Your task to perform on an android device: delete browsing data in the chrome app Image 0: 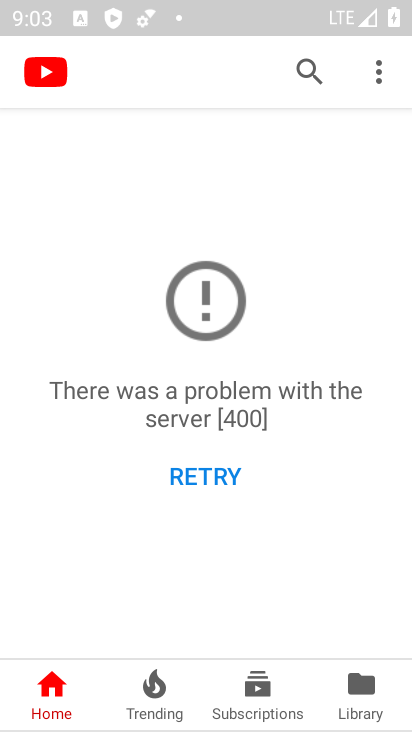
Step 0: press home button
Your task to perform on an android device: delete browsing data in the chrome app Image 1: 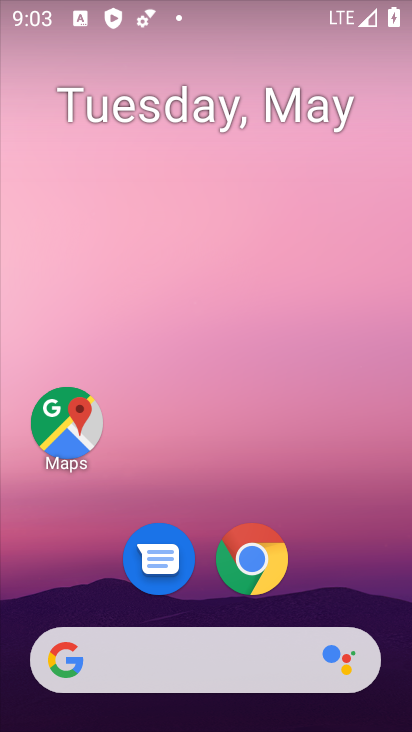
Step 1: click (257, 566)
Your task to perform on an android device: delete browsing data in the chrome app Image 2: 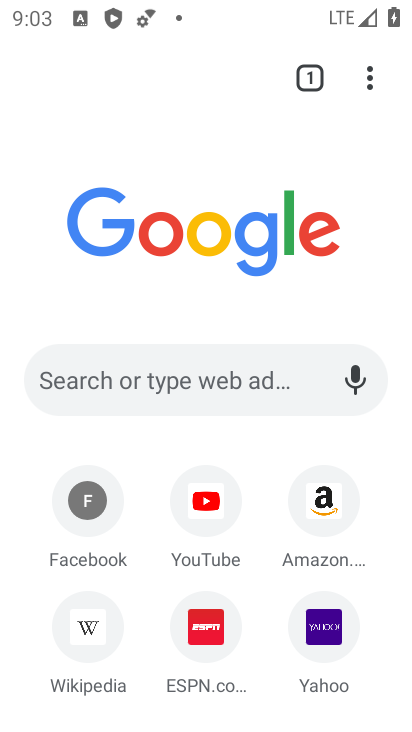
Step 2: drag from (365, 85) to (108, 423)
Your task to perform on an android device: delete browsing data in the chrome app Image 3: 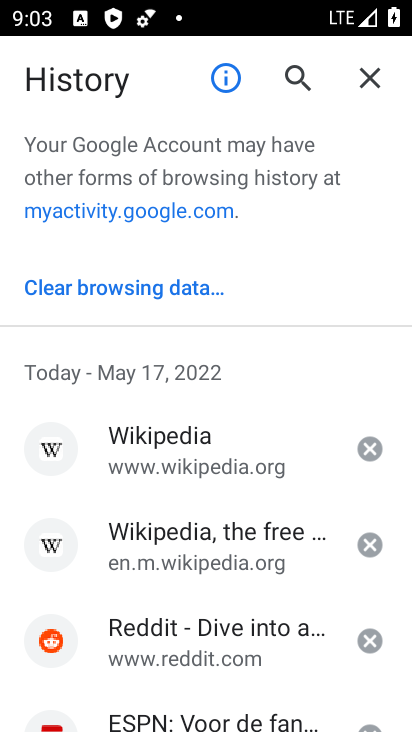
Step 3: click (141, 284)
Your task to perform on an android device: delete browsing data in the chrome app Image 4: 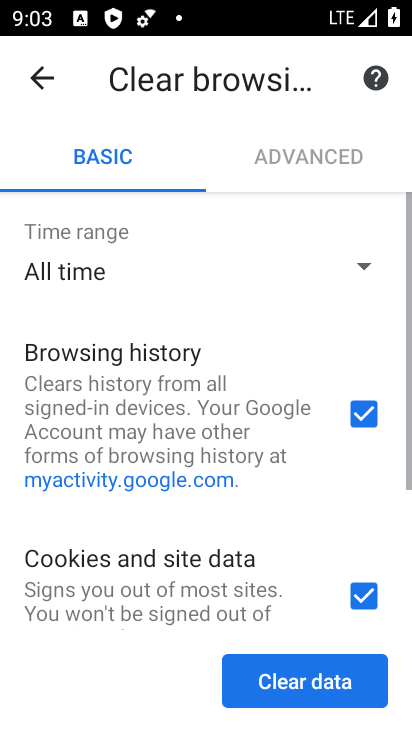
Step 4: drag from (315, 584) to (301, 248)
Your task to perform on an android device: delete browsing data in the chrome app Image 5: 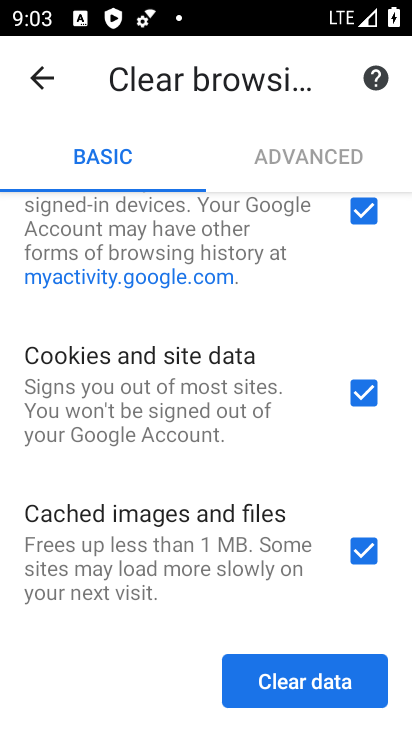
Step 5: click (275, 700)
Your task to perform on an android device: delete browsing data in the chrome app Image 6: 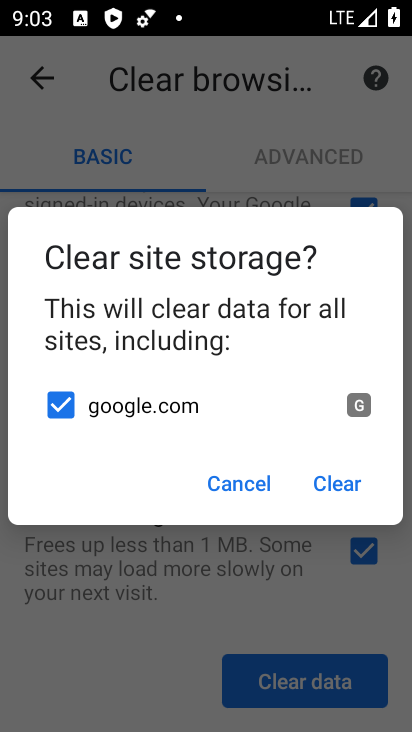
Step 6: click (329, 484)
Your task to perform on an android device: delete browsing data in the chrome app Image 7: 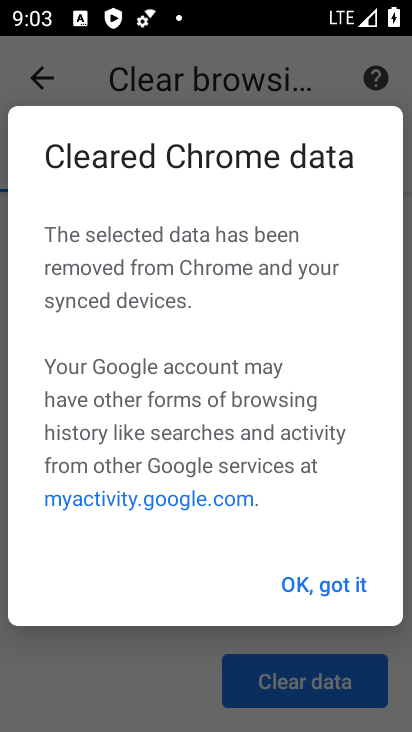
Step 7: click (343, 587)
Your task to perform on an android device: delete browsing data in the chrome app Image 8: 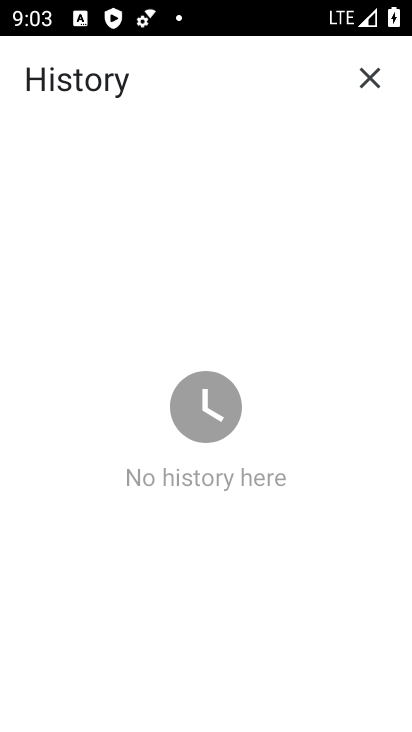
Step 8: task complete